Your task to perform on an android device: uninstall "Google Duo" Image 0: 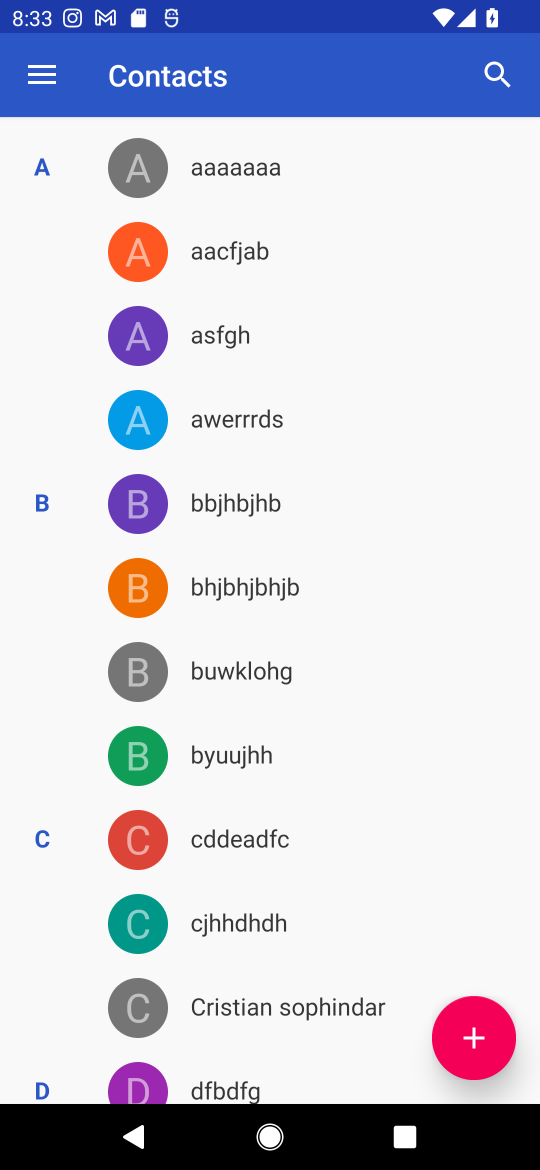
Step 0: press home button
Your task to perform on an android device: uninstall "Google Duo" Image 1: 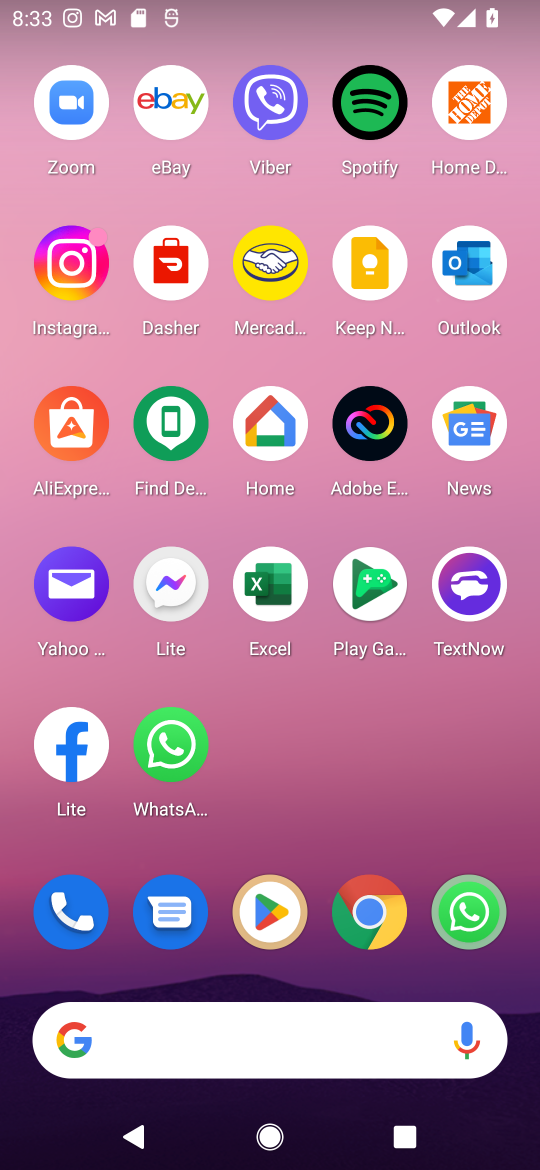
Step 1: click (266, 920)
Your task to perform on an android device: uninstall "Google Duo" Image 2: 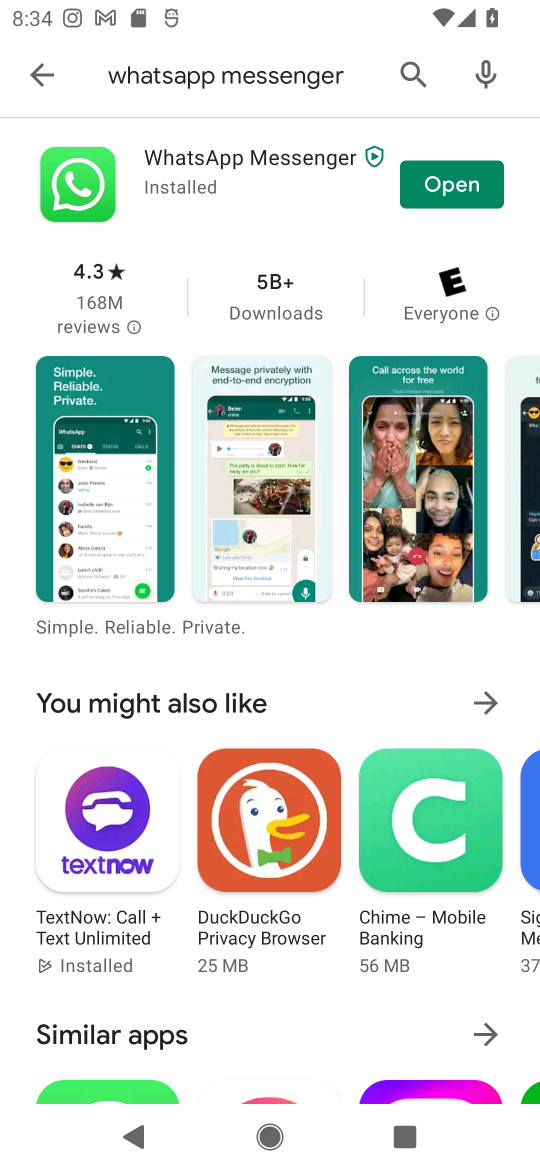
Step 2: click (408, 63)
Your task to perform on an android device: uninstall "Google Duo" Image 3: 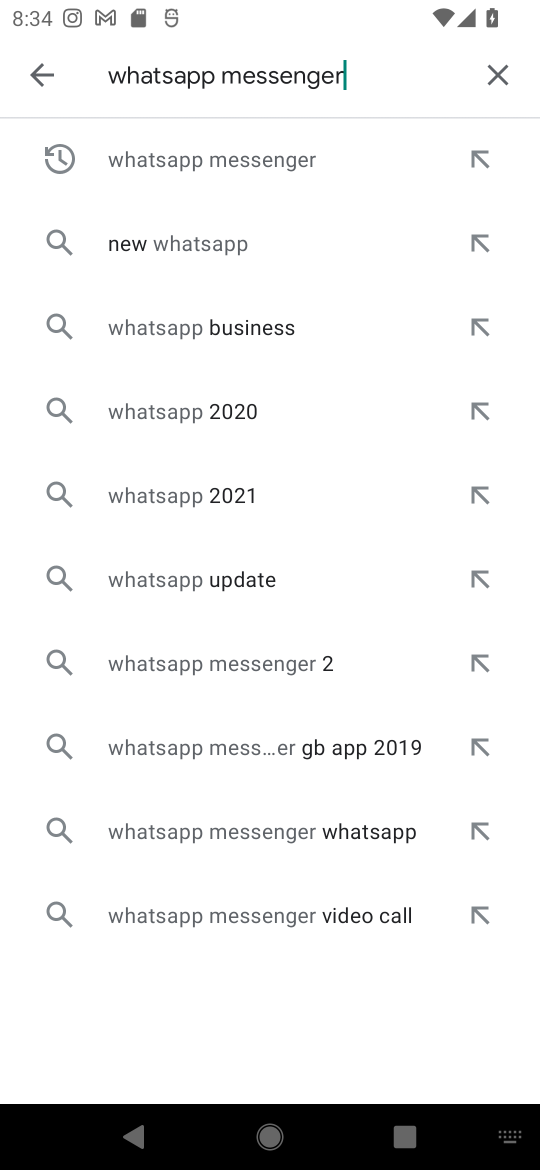
Step 3: click (493, 68)
Your task to perform on an android device: uninstall "Google Duo" Image 4: 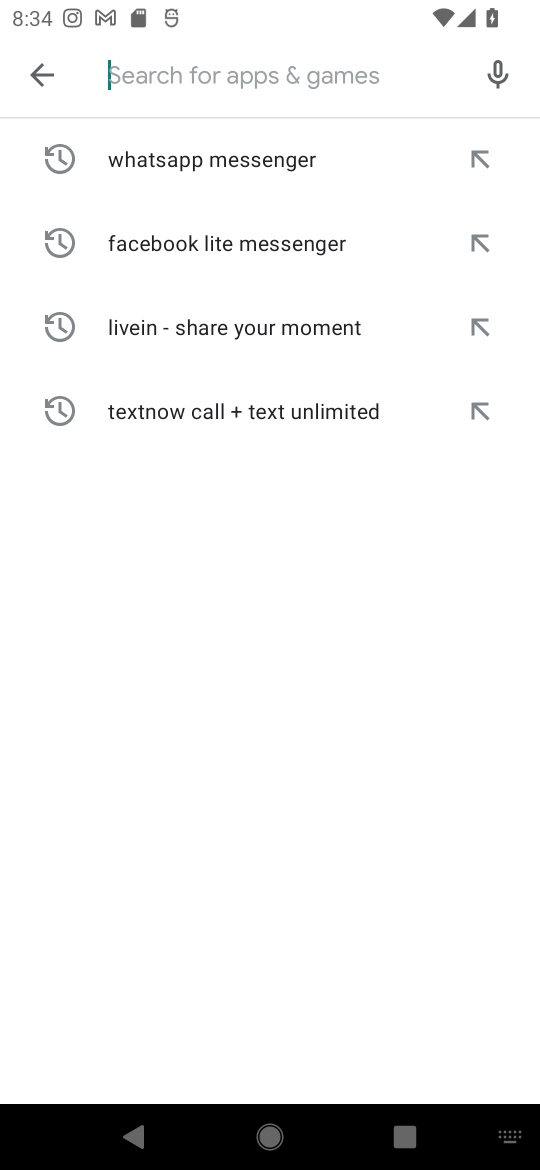
Step 4: type "Google Duo"
Your task to perform on an android device: uninstall "Google Duo" Image 5: 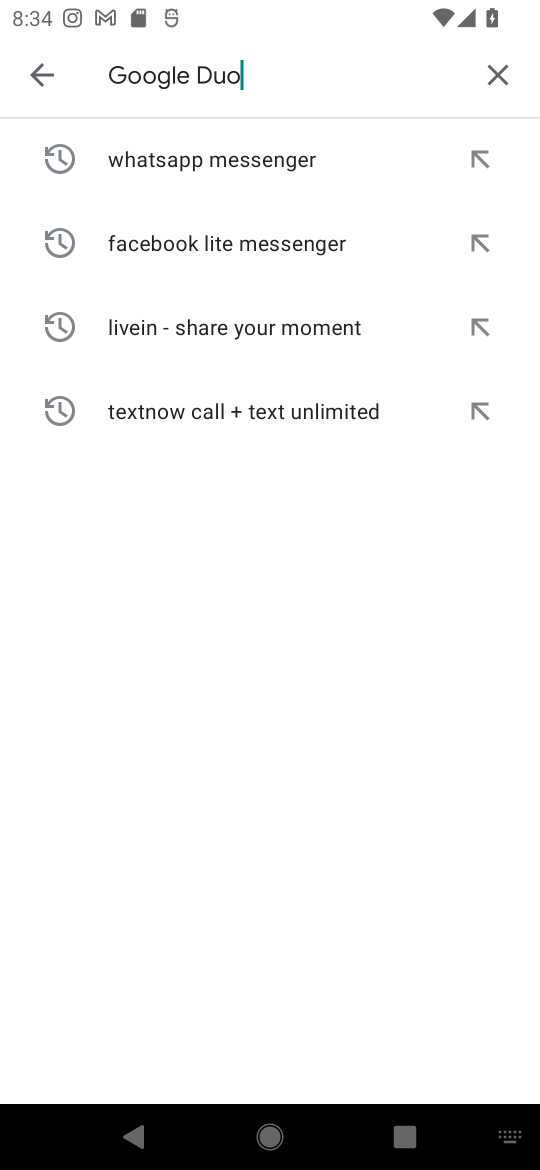
Step 5: type ""
Your task to perform on an android device: uninstall "Google Duo" Image 6: 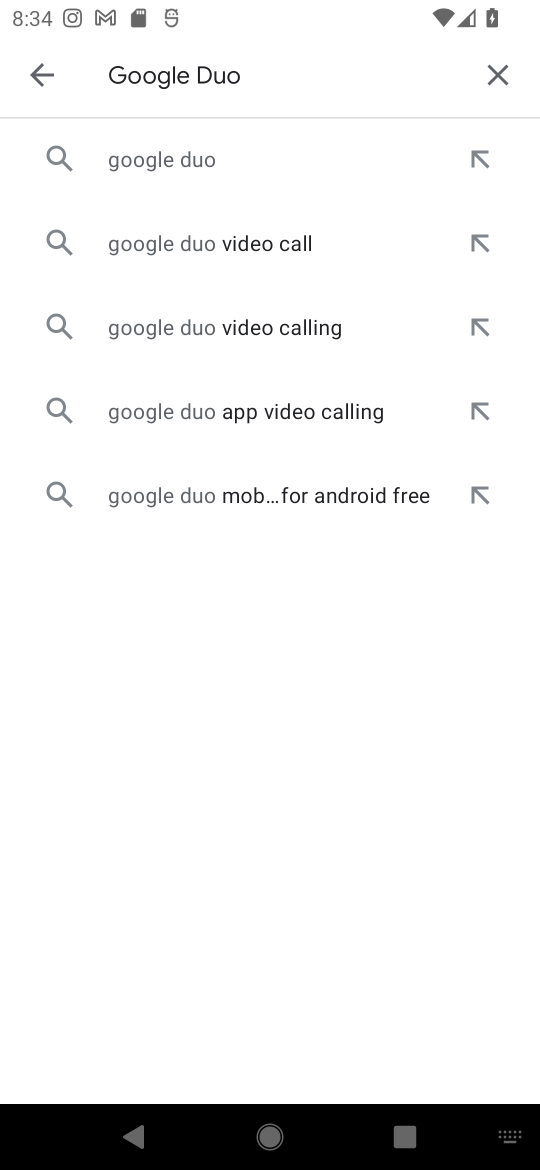
Step 6: click (185, 160)
Your task to perform on an android device: uninstall "Google Duo" Image 7: 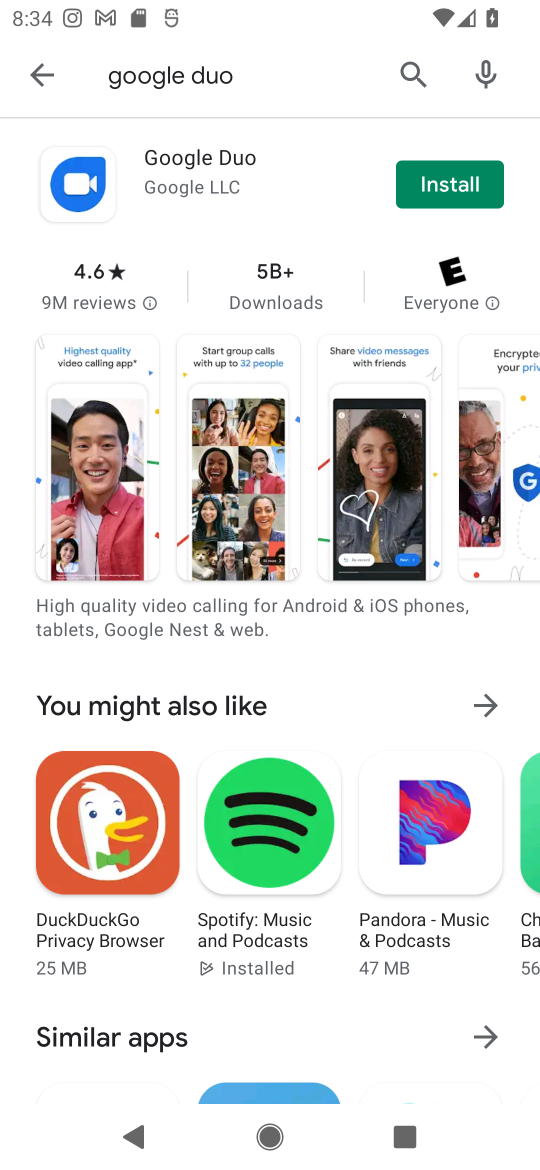
Step 7: click (156, 181)
Your task to perform on an android device: uninstall "Google Duo" Image 8: 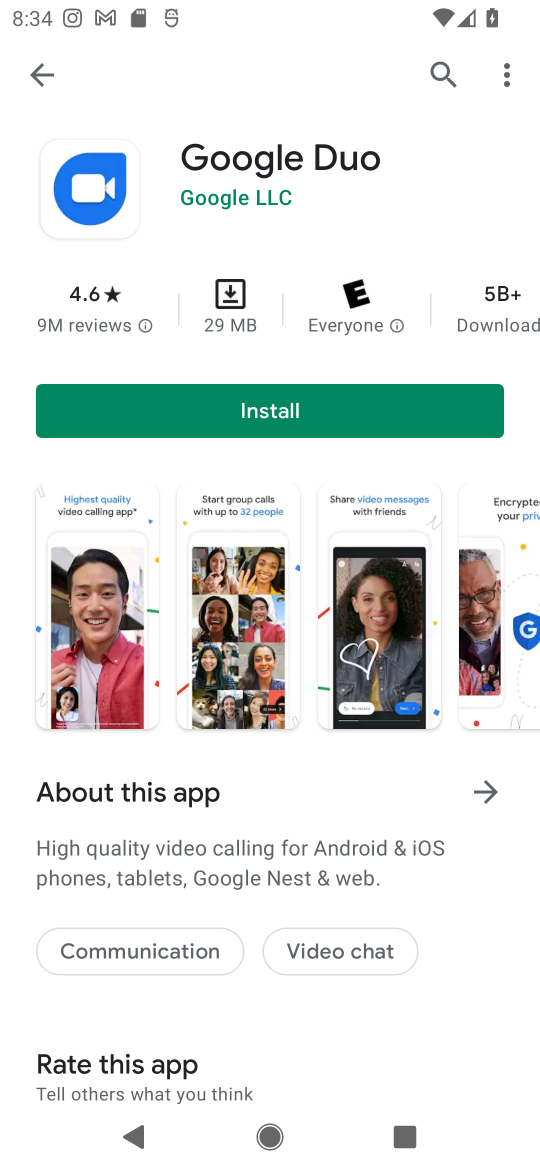
Step 8: task complete